Your task to perform on an android device: Do I have any events today? Image 0: 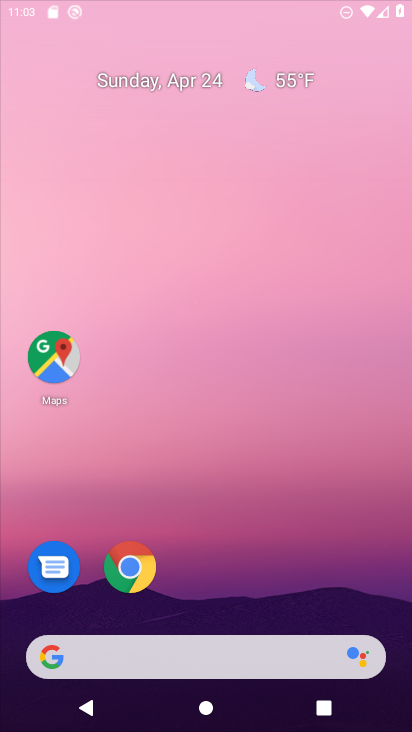
Step 0: click (336, 236)
Your task to perform on an android device: Do I have any events today? Image 1: 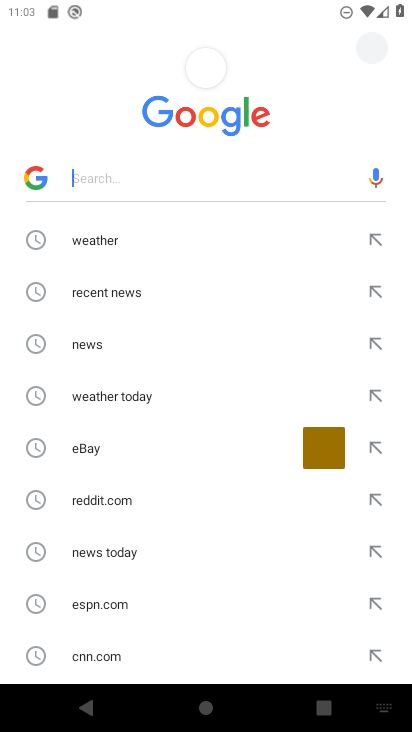
Step 1: press home button
Your task to perform on an android device: Do I have any events today? Image 2: 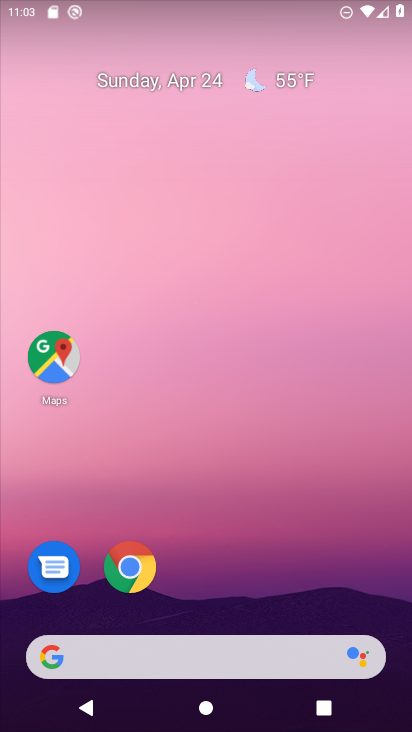
Step 2: drag from (375, 471) to (337, 142)
Your task to perform on an android device: Do I have any events today? Image 3: 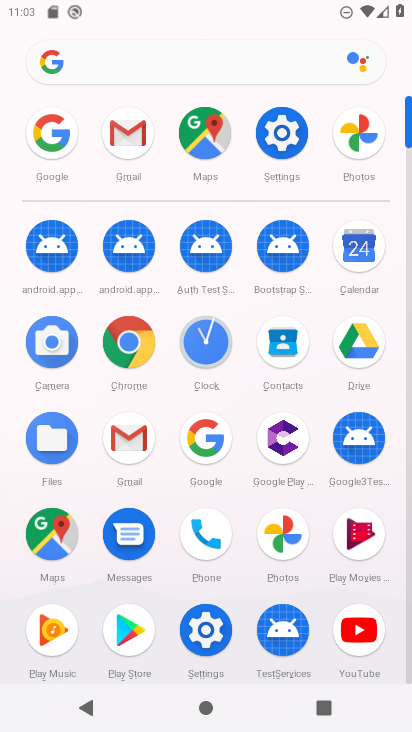
Step 3: click (358, 256)
Your task to perform on an android device: Do I have any events today? Image 4: 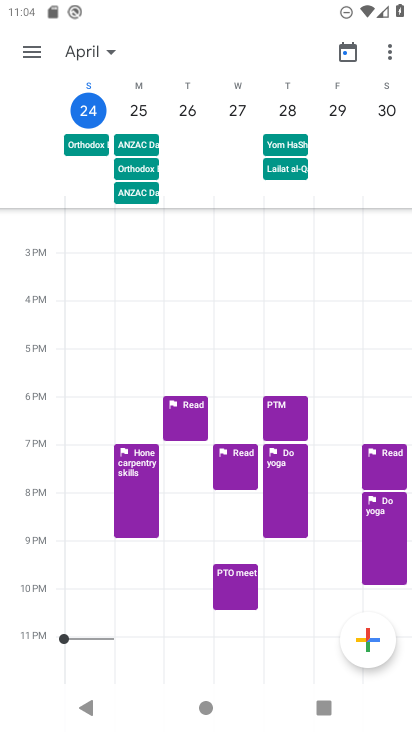
Step 4: click (90, 102)
Your task to perform on an android device: Do I have any events today? Image 5: 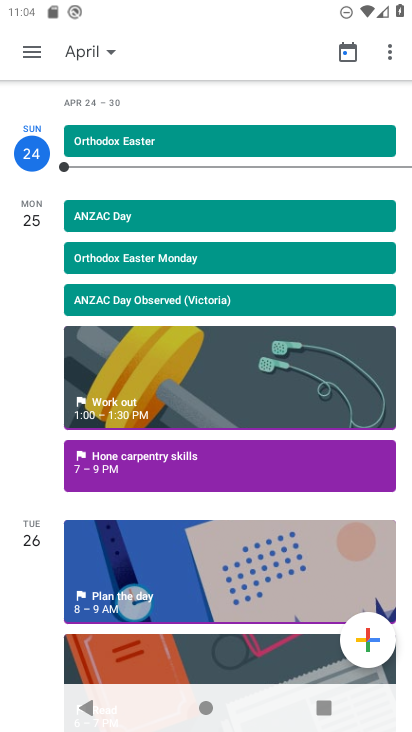
Step 5: task complete